Your task to perform on an android device: Set the phone to "Do not disturb". Image 0: 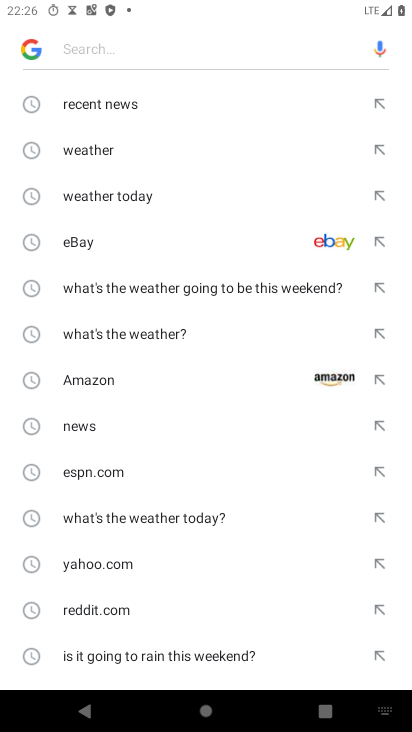
Step 0: press back button
Your task to perform on an android device: Set the phone to "Do not disturb". Image 1: 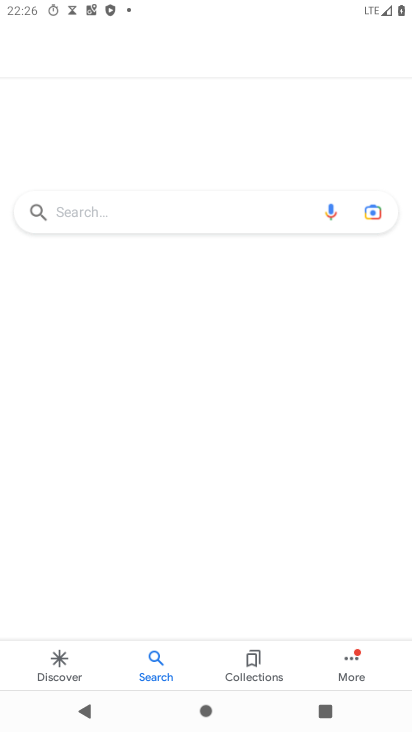
Step 1: press back button
Your task to perform on an android device: Set the phone to "Do not disturb". Image 2: 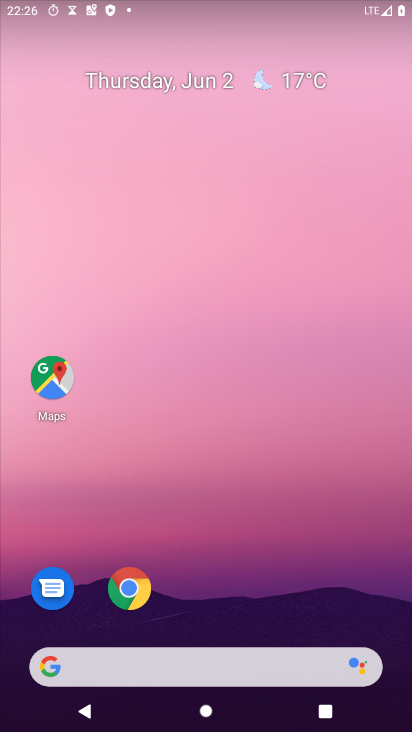
Step 2: drag from (127, 7) to (132, 495)
Your task to perform on an android device: Set the phone to "Do not disturb". Image 3: 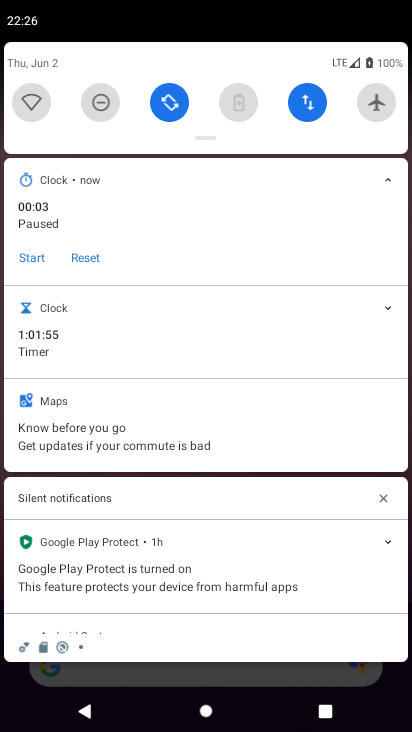
Step 3: click (99, 96)
Your task to perform on an android device: Set the phone to "Do not disturb". Image 4: 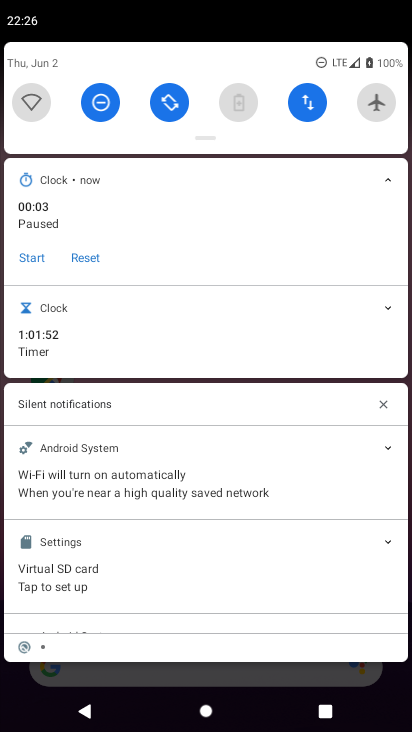
Step 4: task complete